Your task to perform on an android device: change the clock display to digital Image 0: 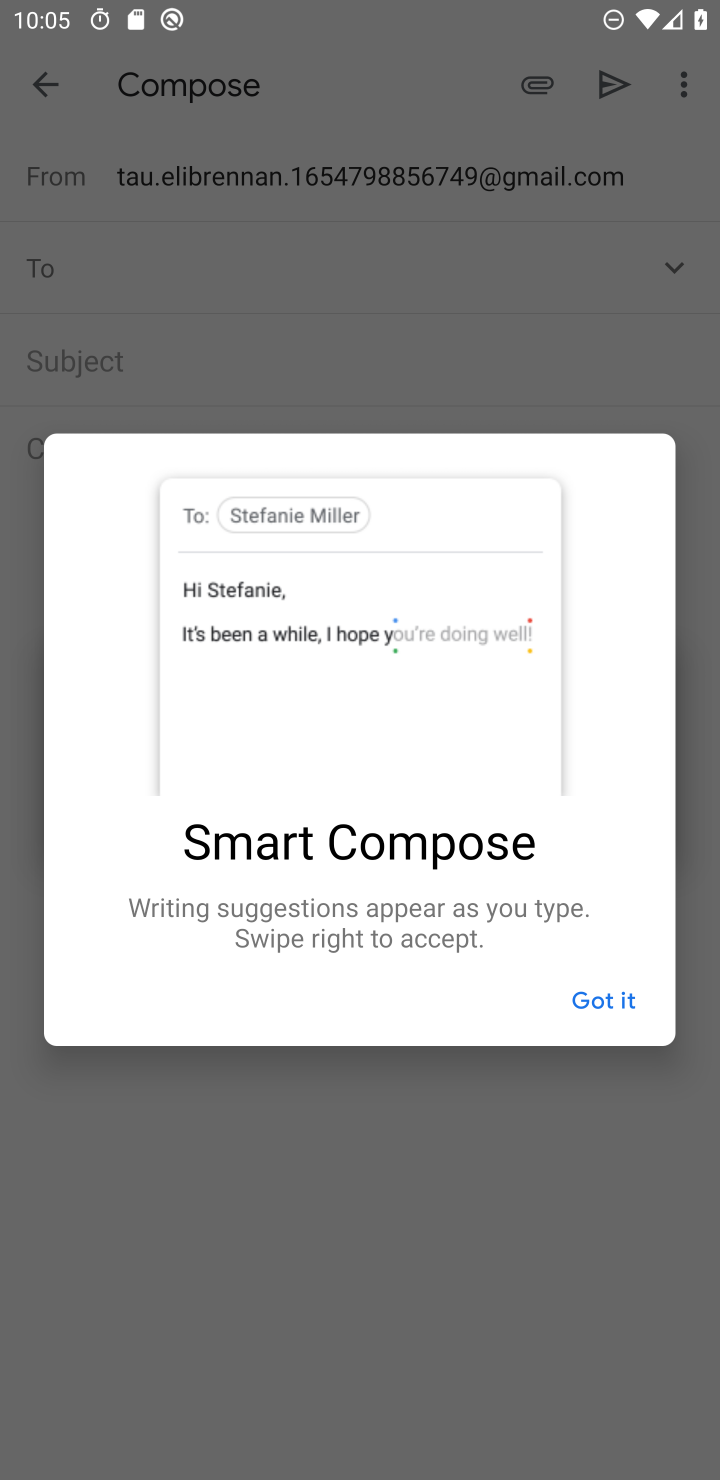
Step 0: press home button
Your task to perform on an android device: change the clock display to digital Image 1: 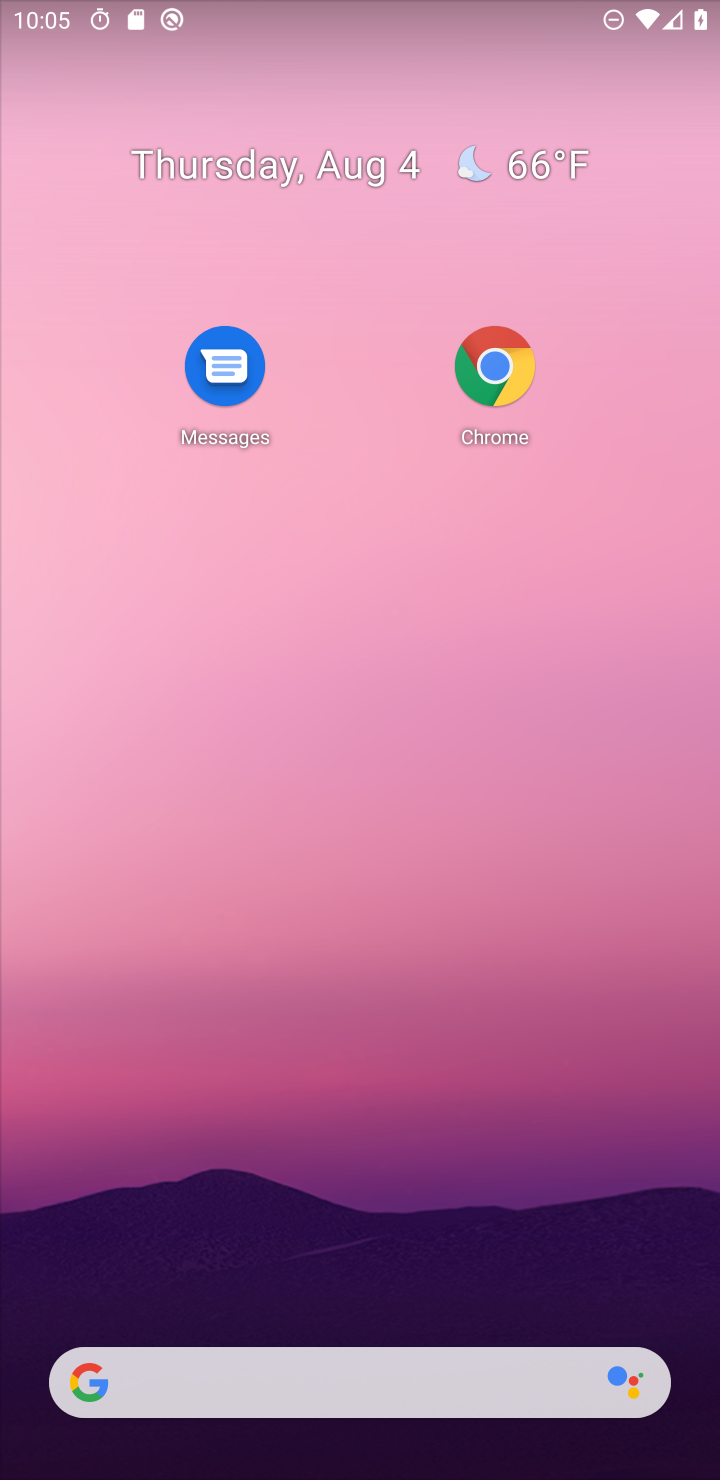
Step 1: drag from (446, 1071) to (297, 547)
Your task to perform on an android device: change the clock display to digital Image 2: 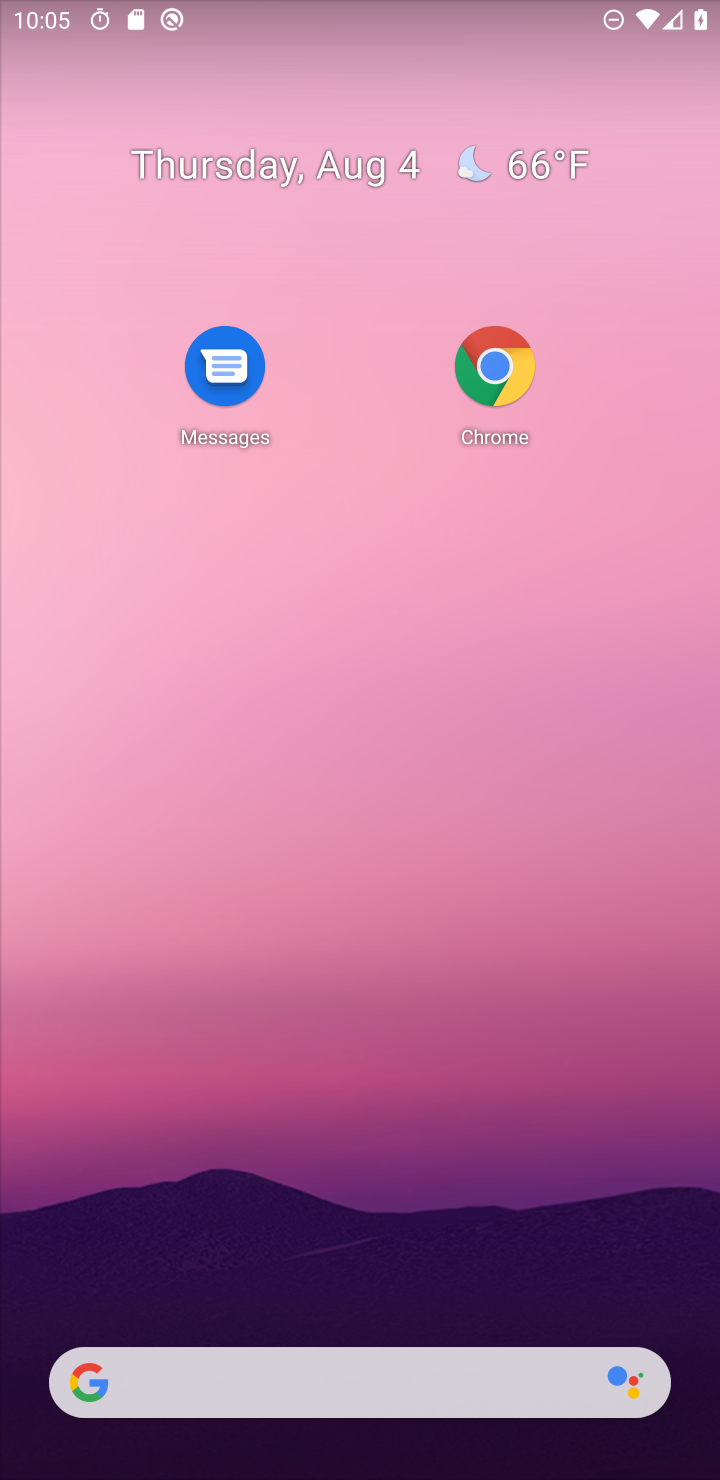
Step 2: drag from (356, 1409) to (416, 310)
Your task to perform on an android device: change the clock display to digital Image 3: 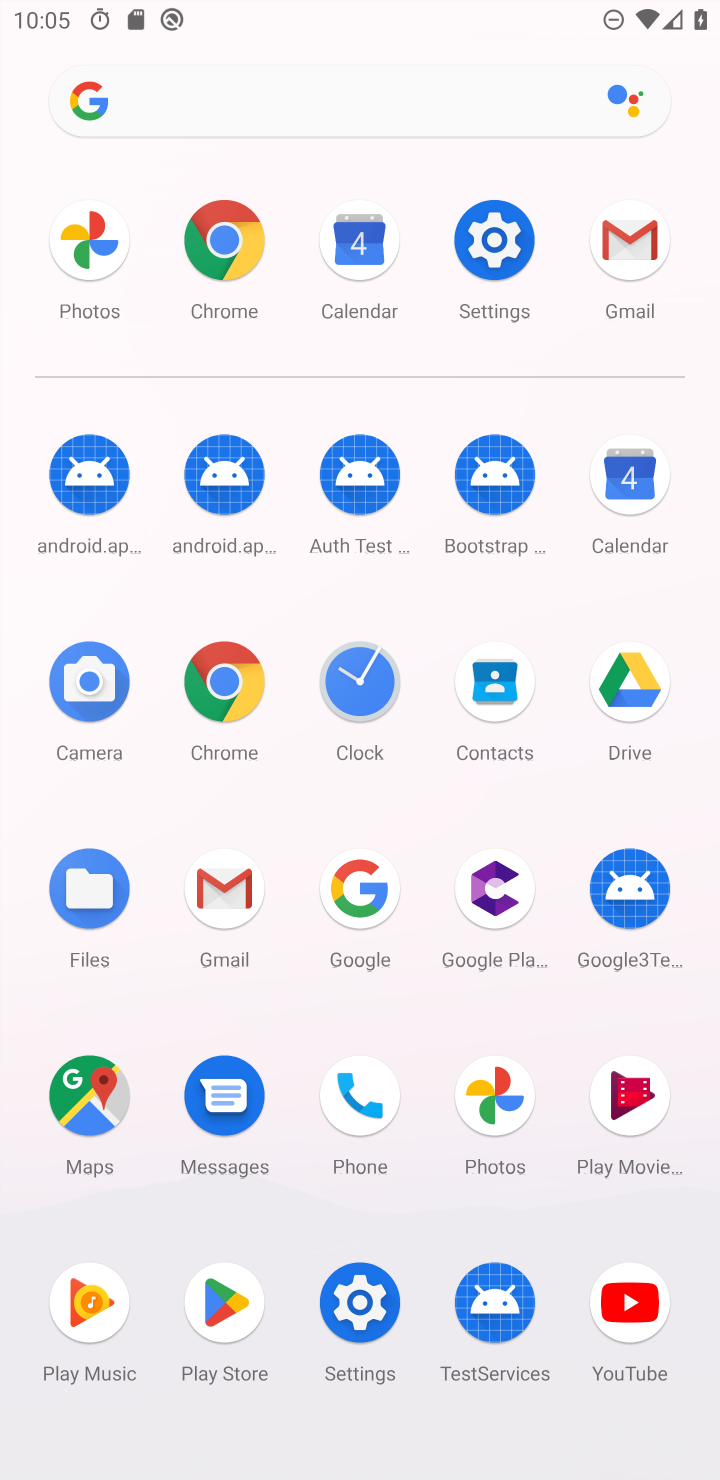
Step 3: click (357, 707)
Your task to perform on an android device: change the clock display to digital Image 4: 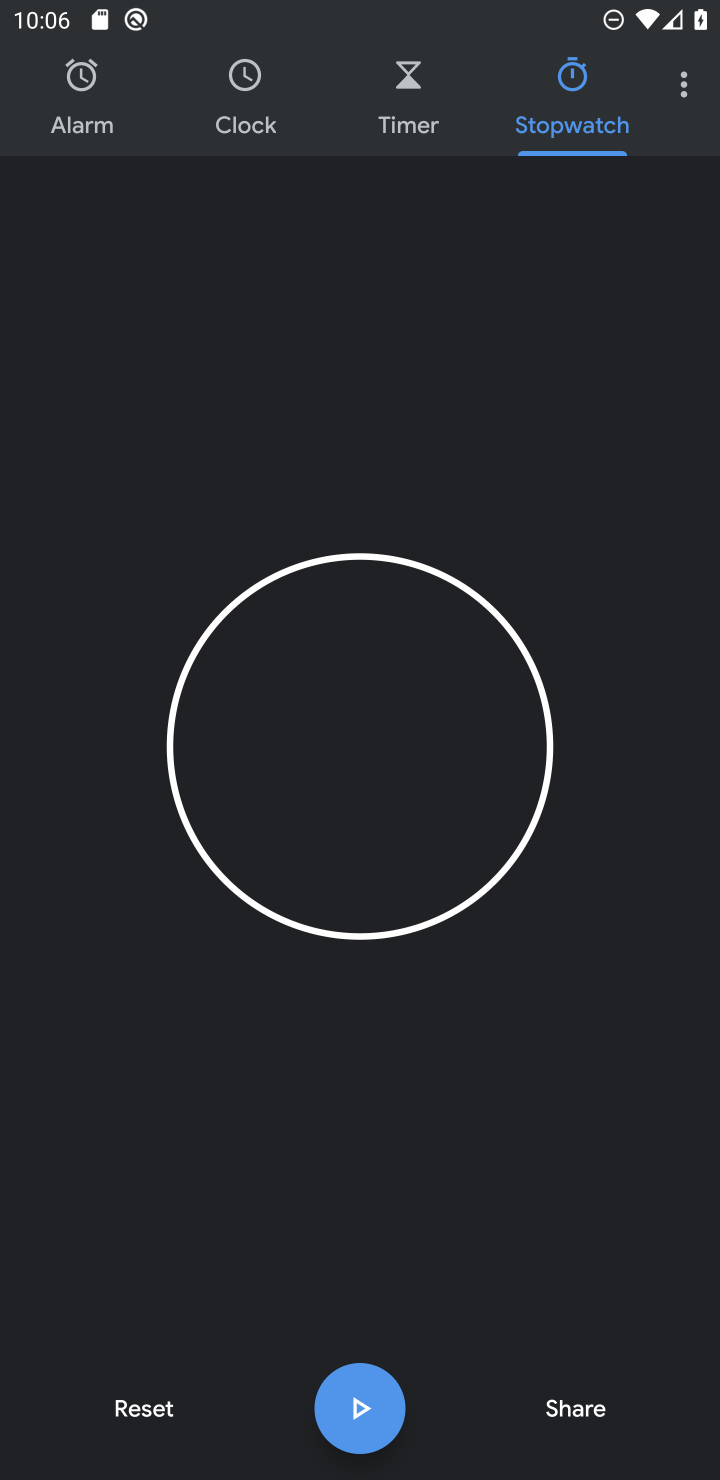
Step 4: click (691, 98)
Your task to perform on an android device: change the clock display to digital Image 5: 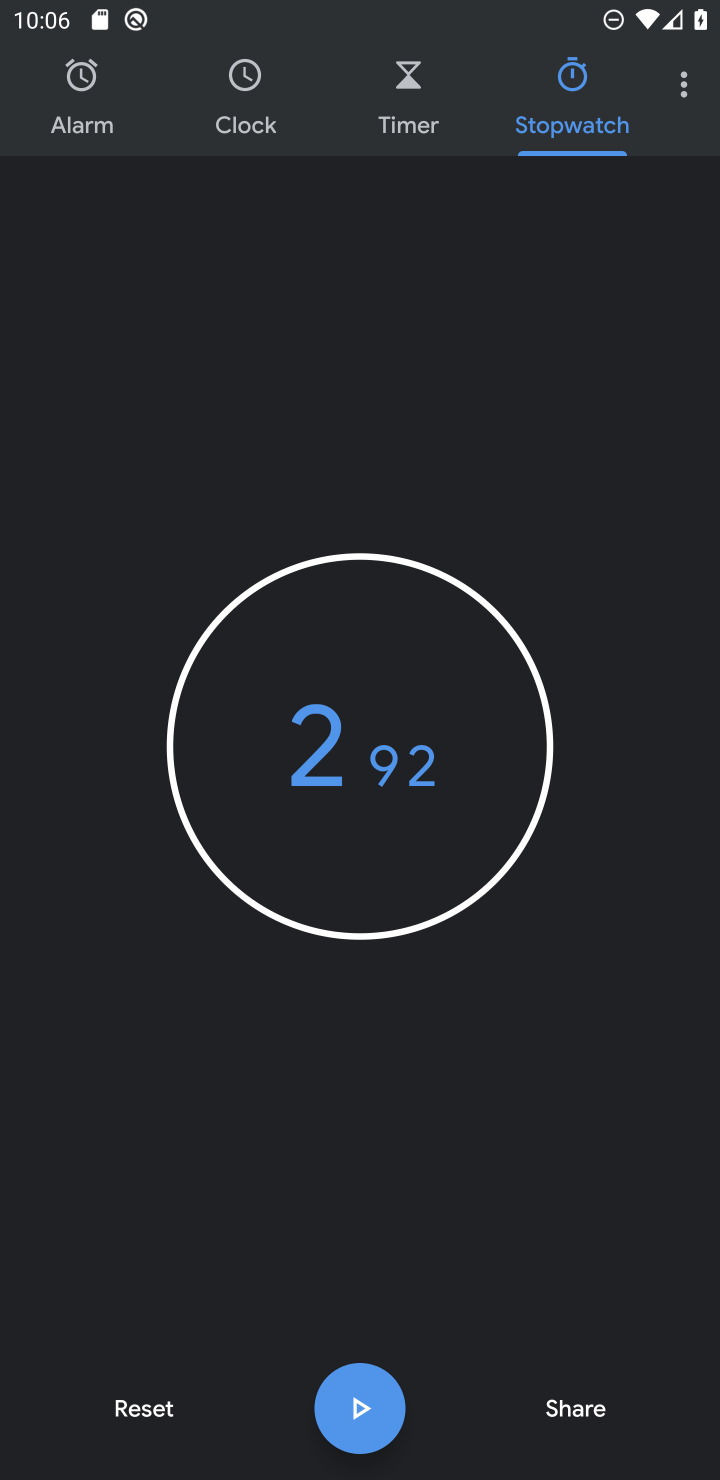
Step 5: click (670, 84)
Your task to perform on an android device: change the clock display to digital Image 6: 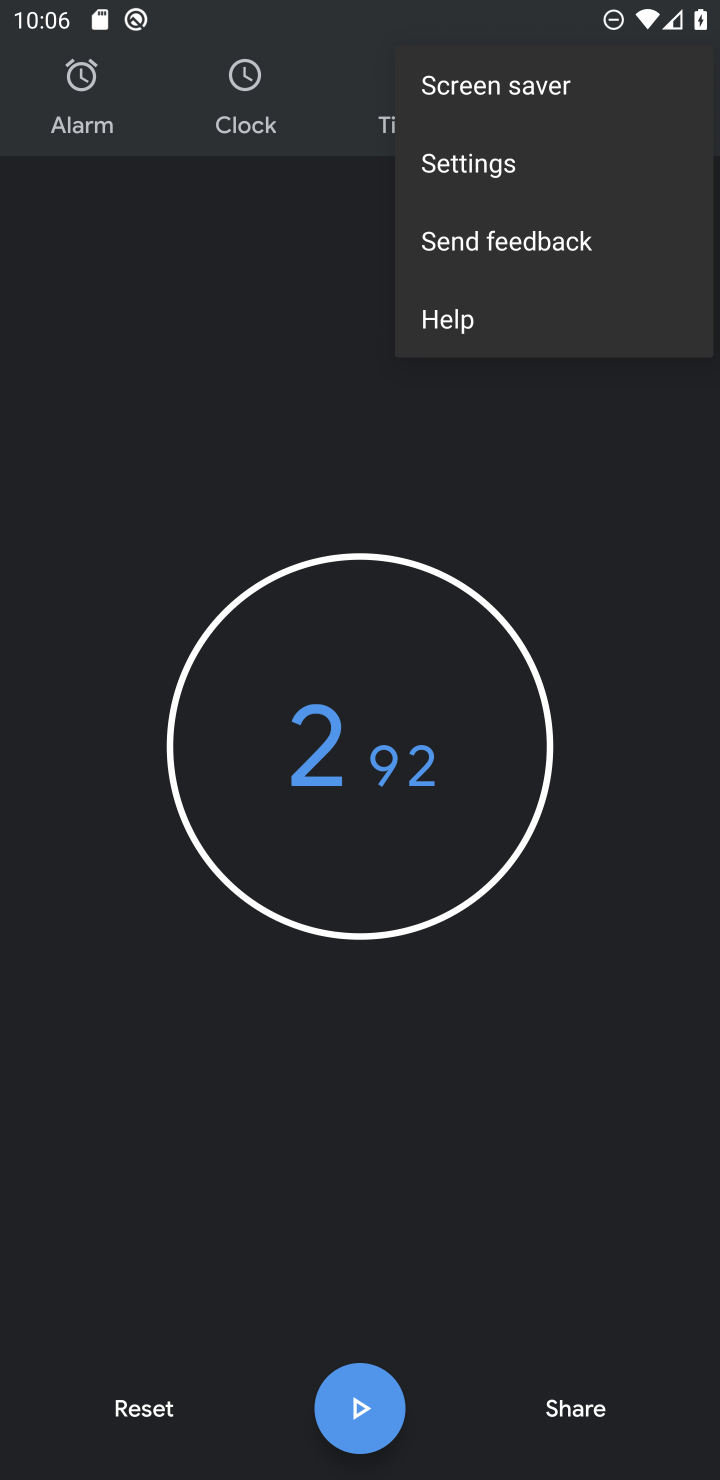
Step 6: click (460, 173)
Your task to perform on an android device: change the clock display to digital Image 7: 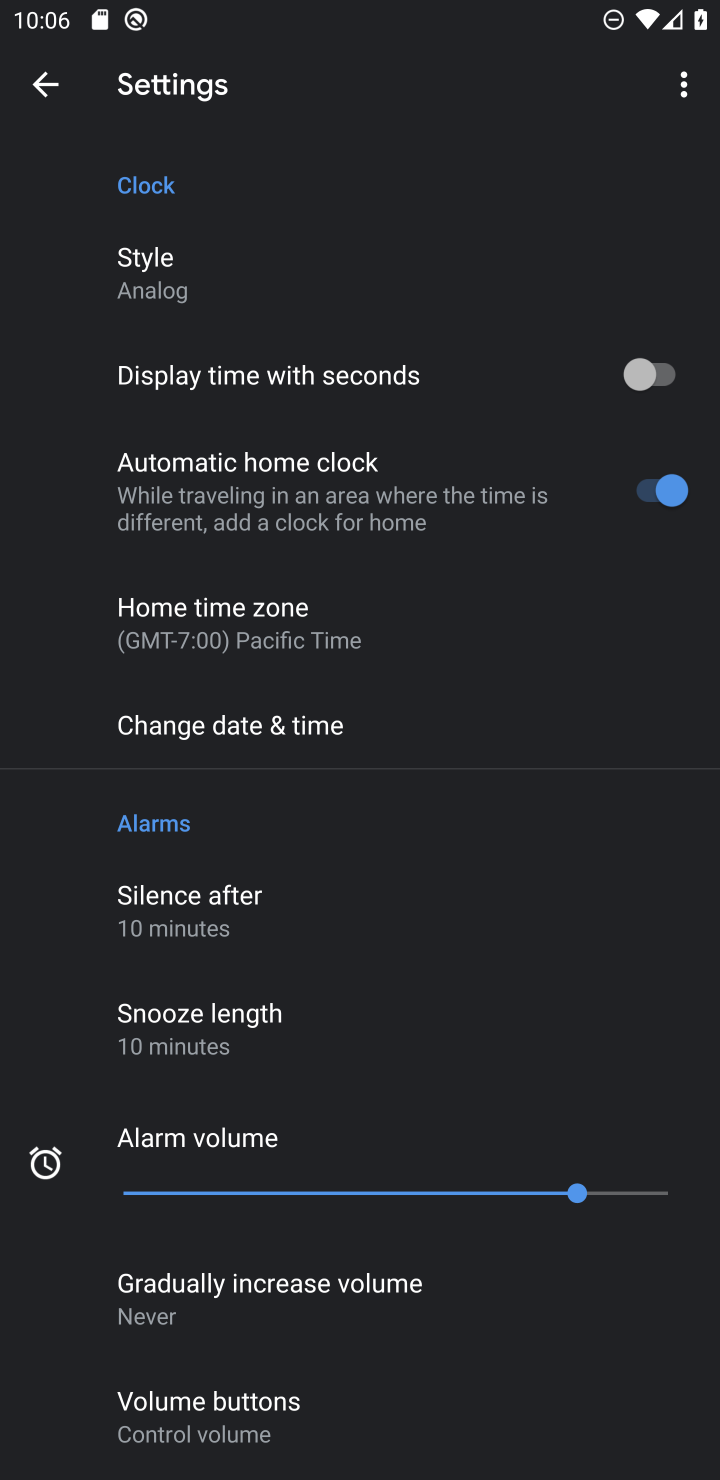
Step 7: click (208, 268)
Your task to perform on an android device: change the clock display to digital Image 8: 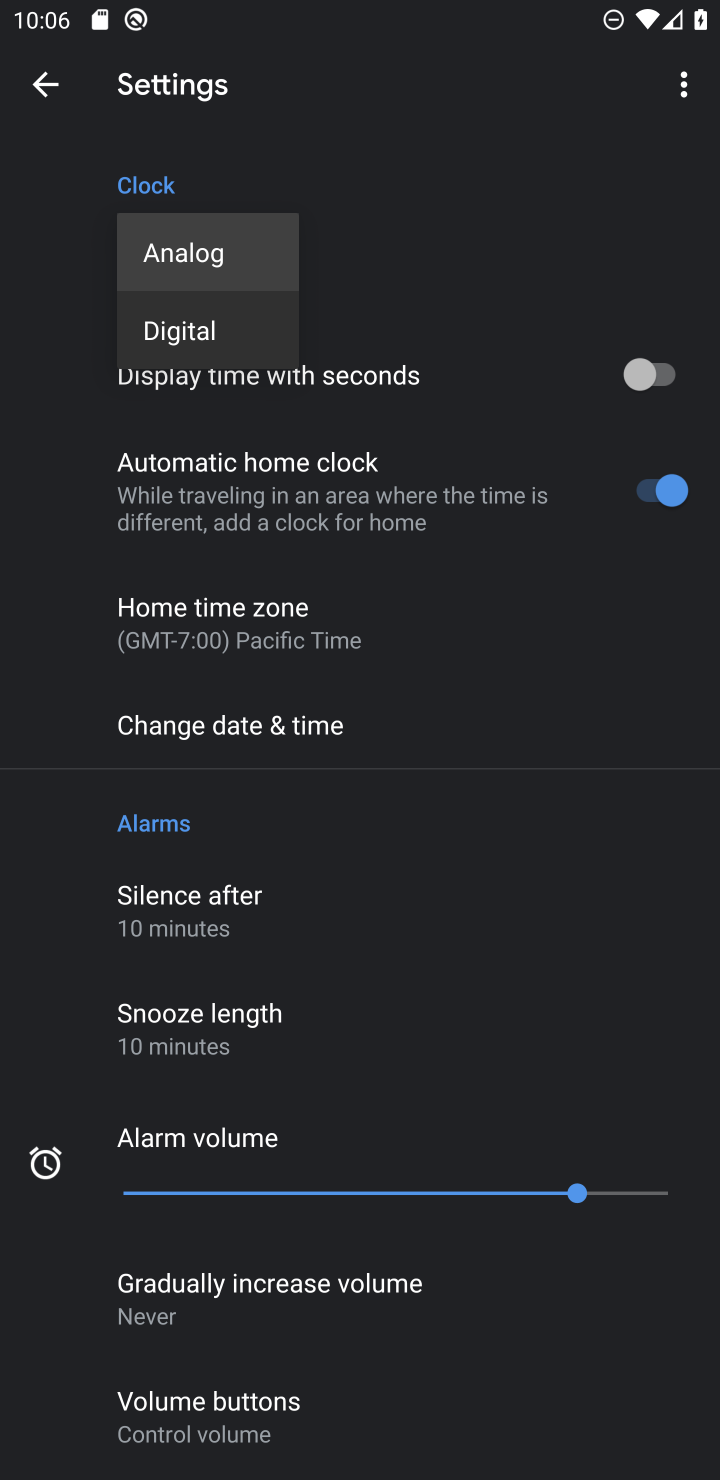
Step 8: click (194, 331)
Your task to perform on an android device: change the clock display to digital Image 9: 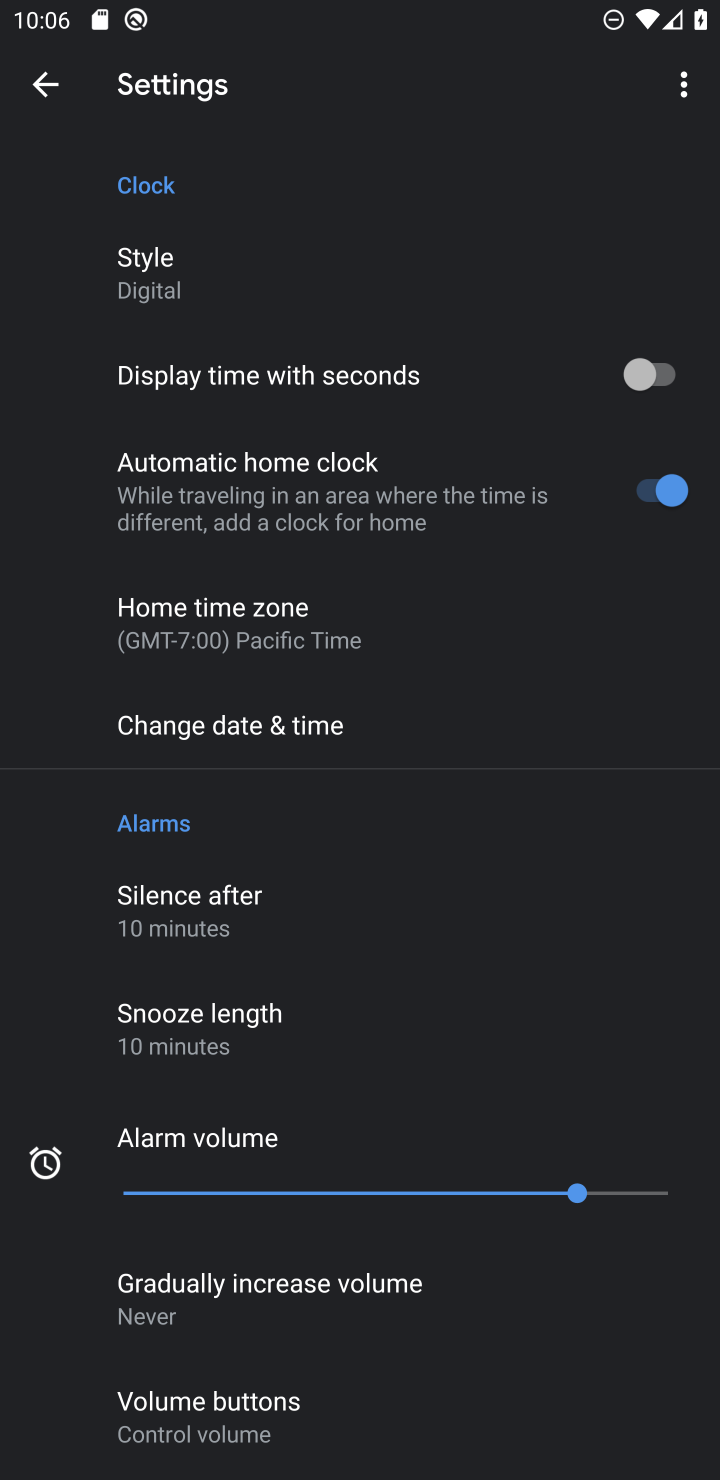
Step 9: task complete